Your task to perform on an android device: uninstall "Adobe Acrobat Reader: Edit PDF" Image 0: 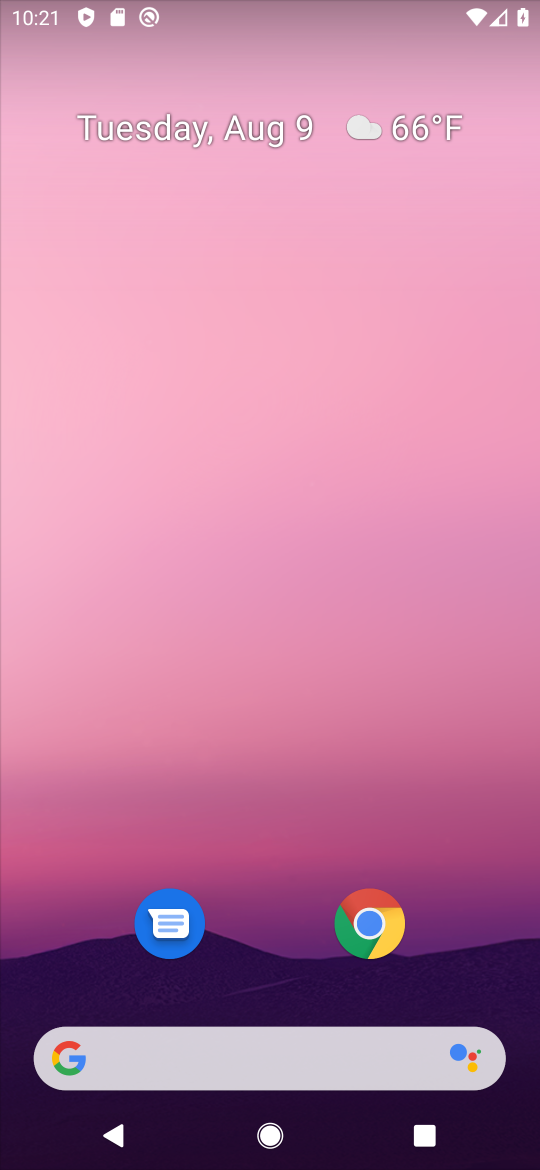
Step 0: press home button
Your task to perform on an android device: uninstall "Adobe Acrobat Reader: Edit PDF" Image 1: 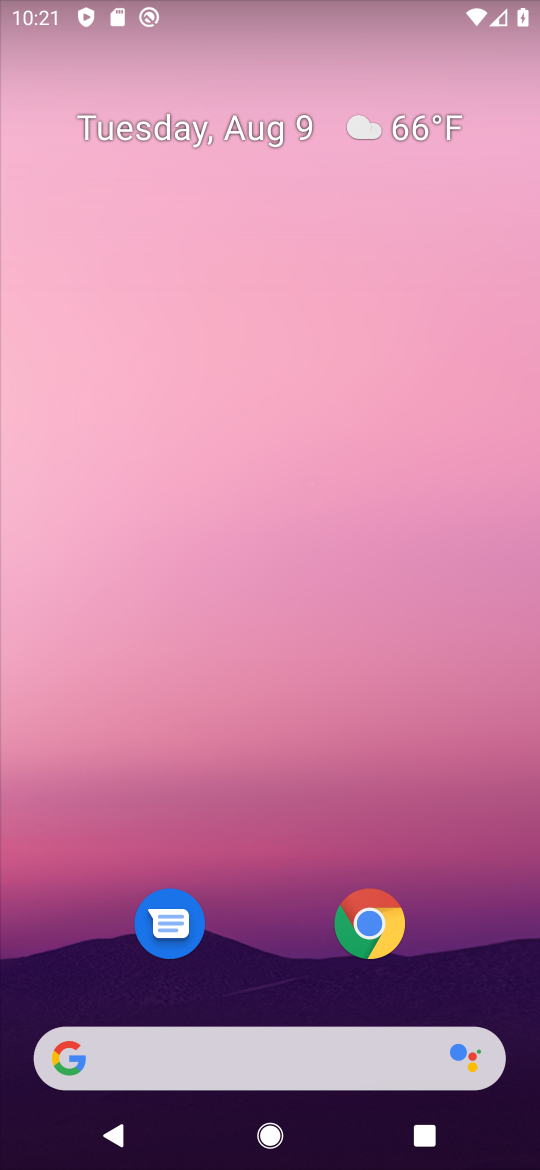
Step 1: drag from (273, 989) to (327, 66)
Your task to perform on an android device: uninstall "Adobe Acrobat Reader: Edit PDF" Image 2: 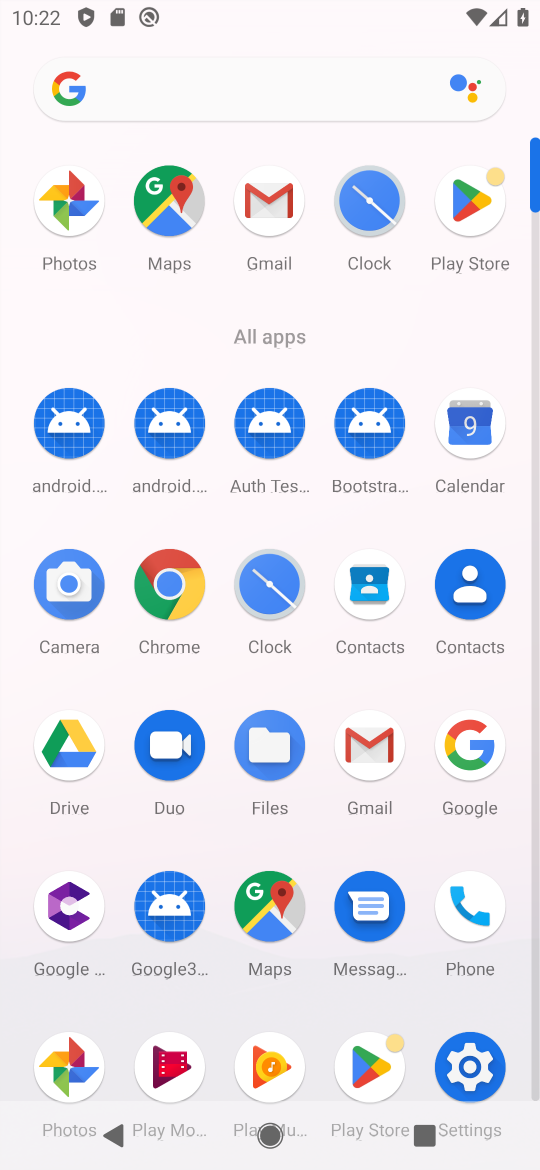
Step 2: click (469, 194)
Your task to perform on an android device: uninstall "Adobe Acrobat Reader: Edit PDF" Image 3: 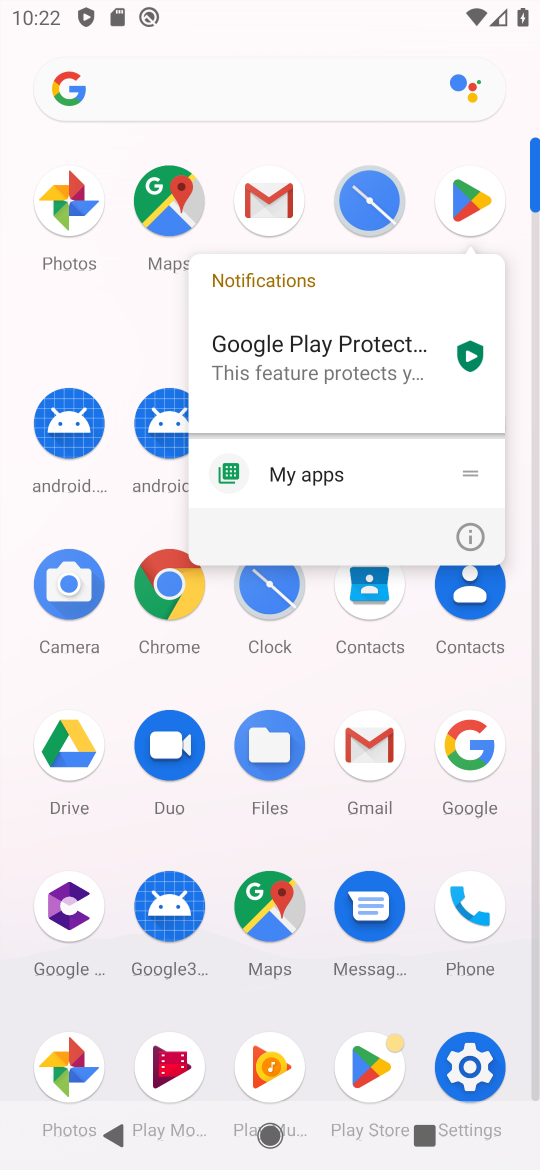
Step 3: click (469, 194)
Your task to perform on an android device: uninstall "Adobe Acrobat Reader: Edit PDF" Image 4: 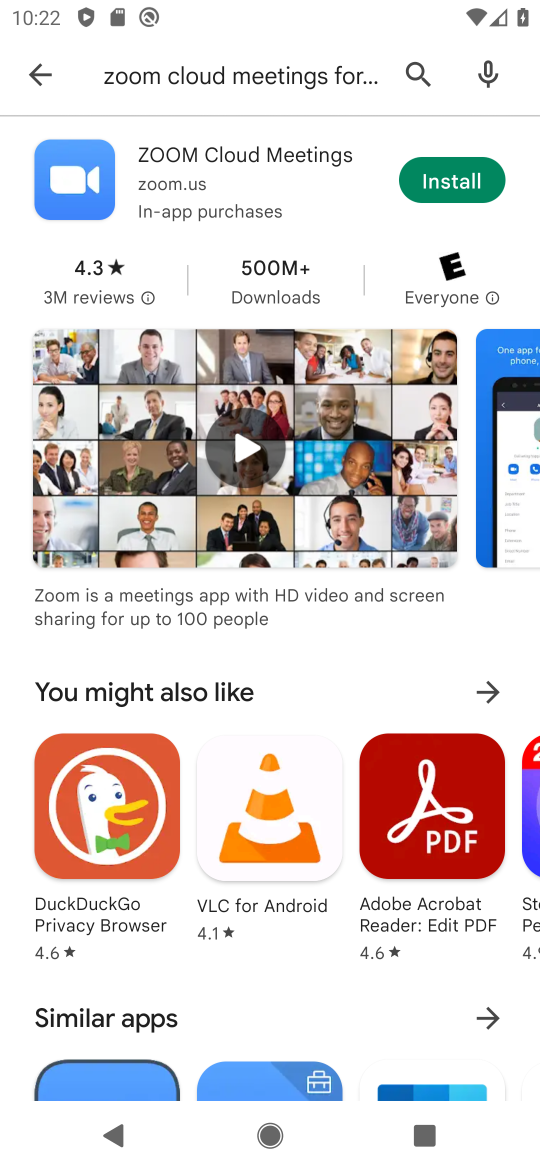
Step 4: click (406, 73)
Your task to perform on an android device: uninstall "Adobe Acrobat Reader: Edit PDF" Image 5: 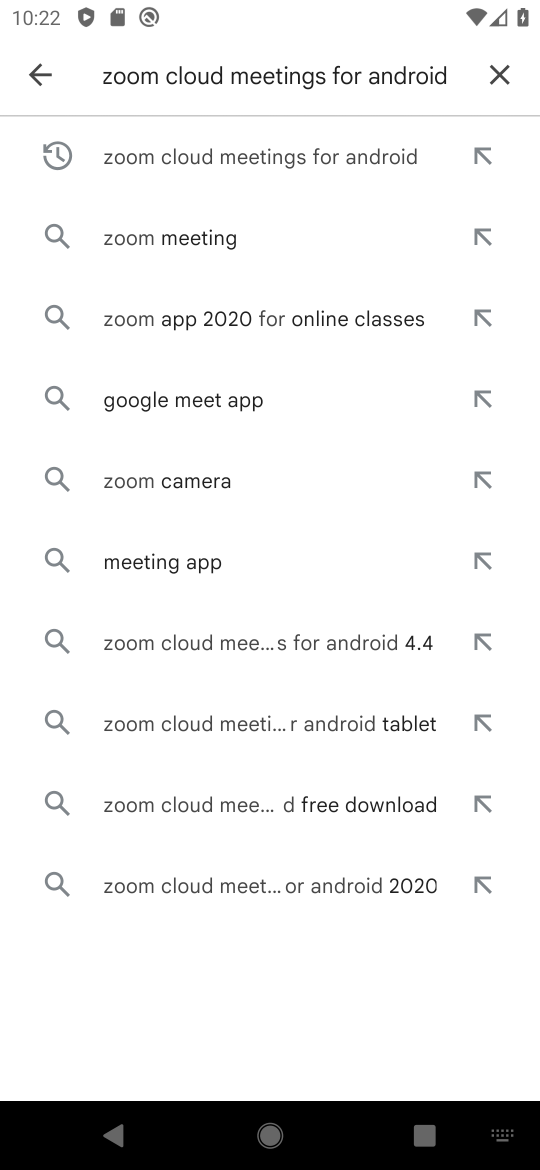
Step 5: click (495, 81)
Your task to perform on an android device: uninstall "Adobe Acrobat Reader: Edit PDF" Image 6: 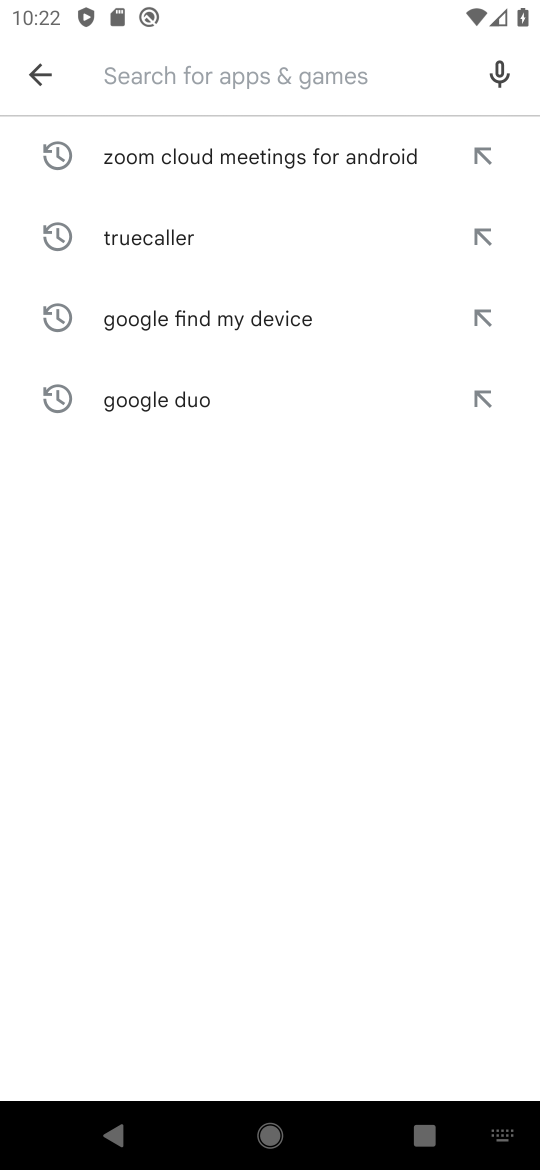
Step 6: type "Adobe Acrobat Reader: Edit PDF"
Your task to perform on an android device: uninstall "Adobe Acrobat Reader: Edit PDF" Image 7: 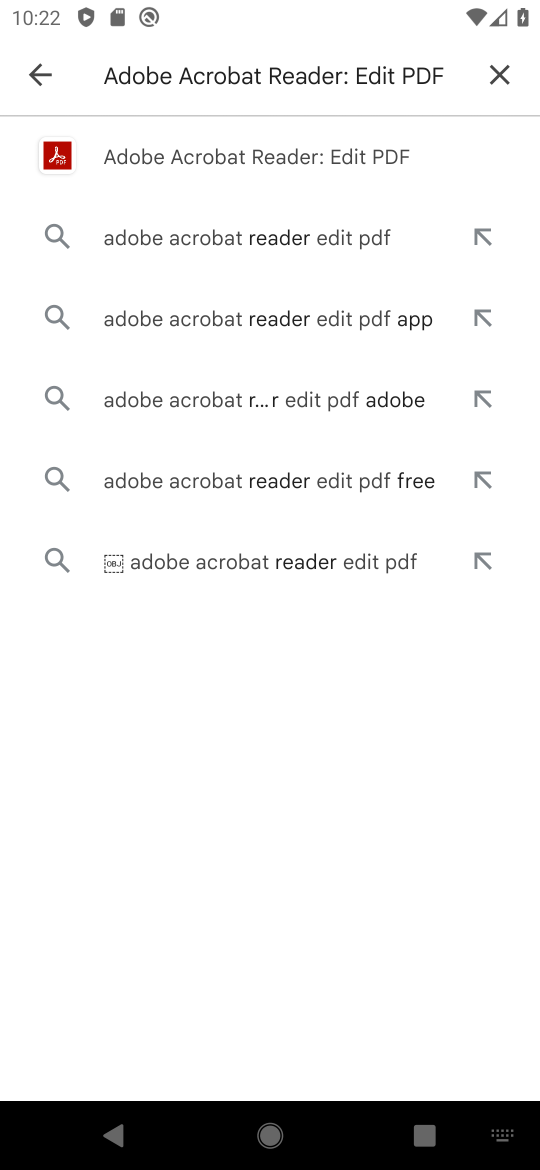
Step 7: click (178, 73)
Your task to perform on an android device: uninstall "Adobe Acrobat Reader: Edit PDF" Image 8: 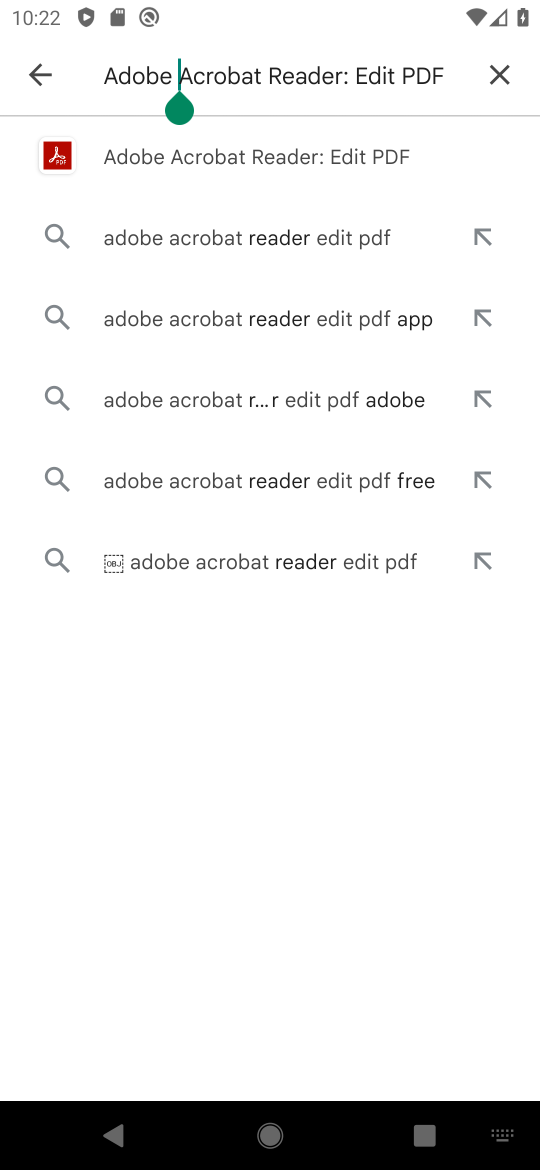
Step 8: click (188, 157)
Your task to perform on an android device: uninstall "Adobe Acrobat Reader: Edit PDF" Image 9: 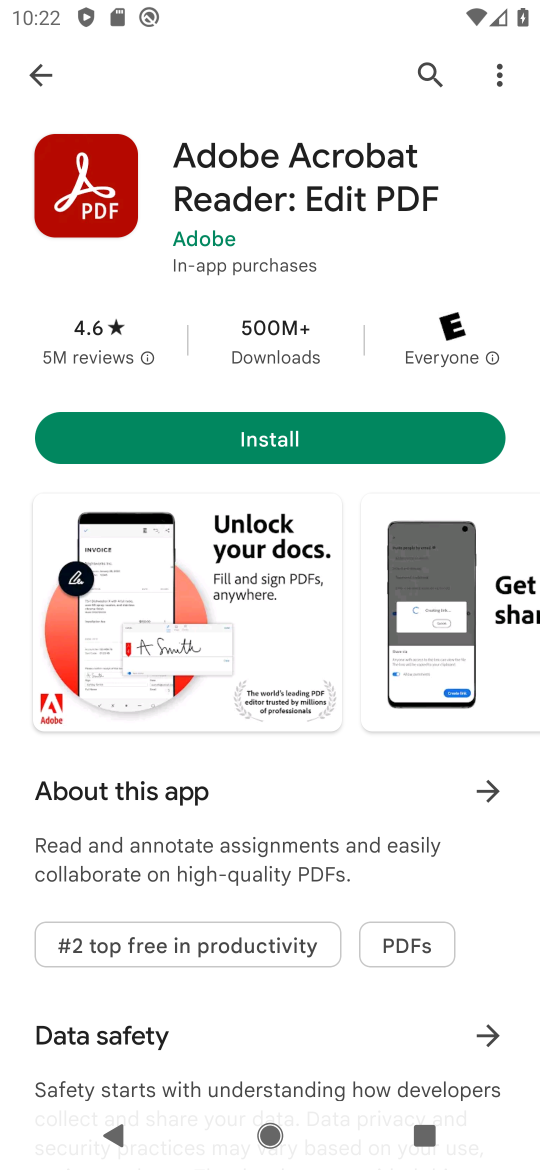
Step 9: task complete